Your task to perform on an android device: open wifi settings Image 0: 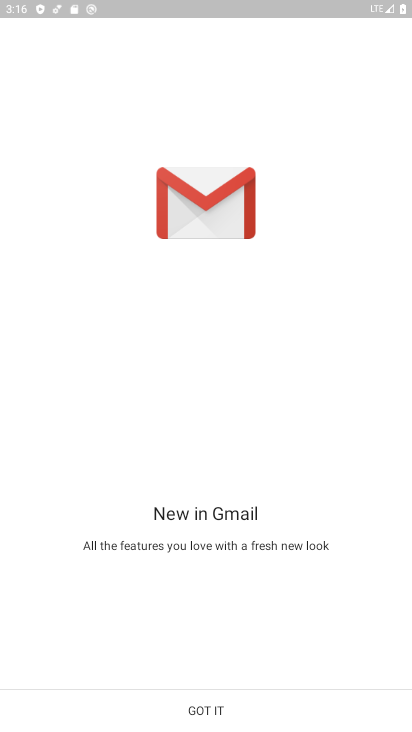
Step 0: press home button
Your task to perform on an android device: open wifi settings Image 1: 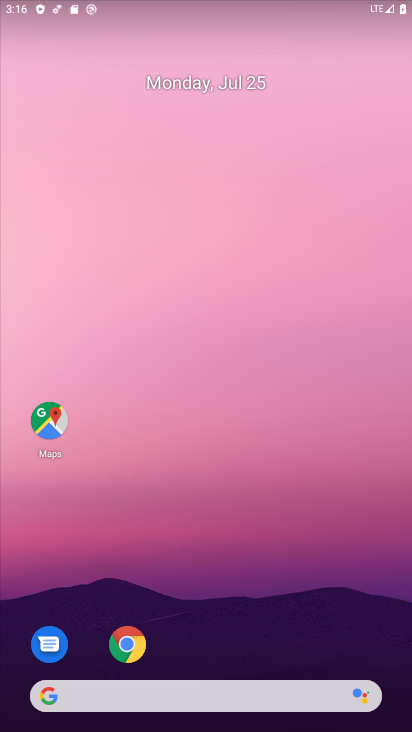
Step 1: drag from (217, 655) to (216, 137)
Your task to perform on an android device: open wifi settings Image 2: 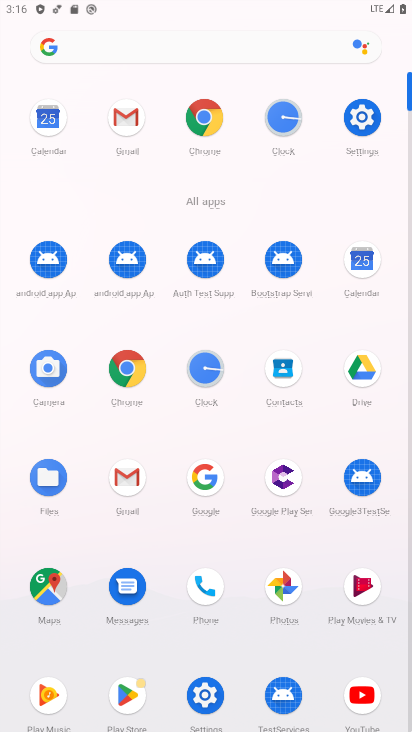
Step 2: click (361, 126)
Your task to perform on an android device: open wifi settings Image 3: 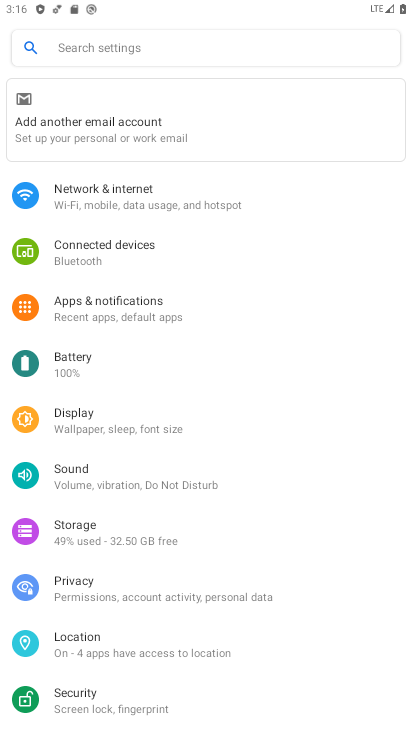
Step 3: click (182, 205)
Your task to perform on an android device: open wifi settings Image 4: 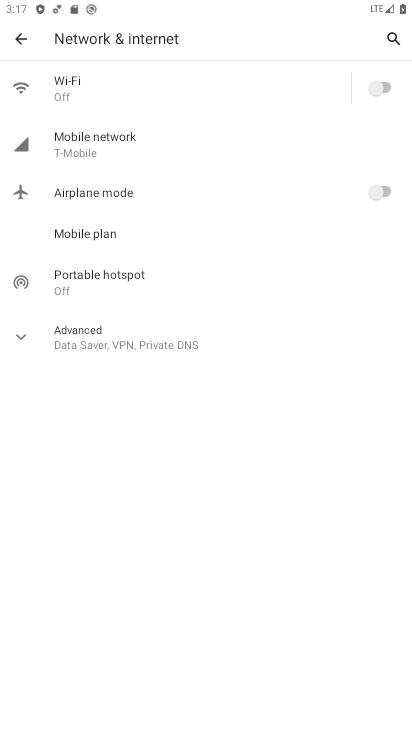
Step 4: click (198, 93)
Your task to perform on an android device: open wifi settings Image 5: 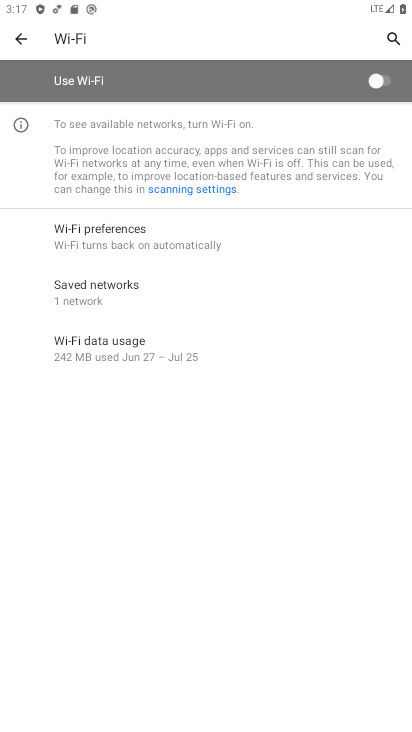
Step 5: task complete